Your task to perform on an android device: Open the calendar and show me this week's events? Image 0: 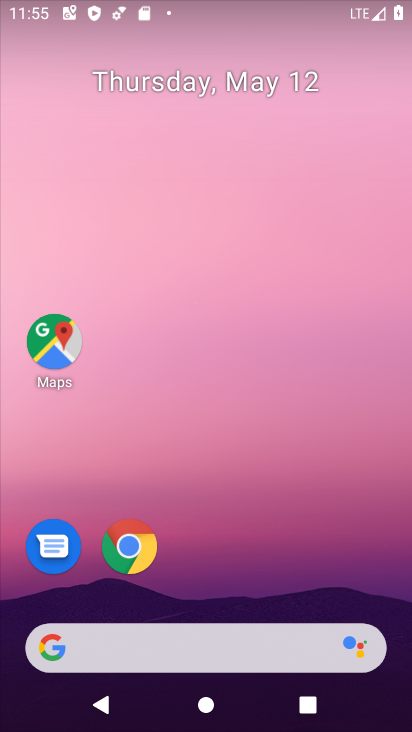
Step 0: click (187, 75)
Your task to perform on an android device: Open the calendar and show me this week's events? Image 1: 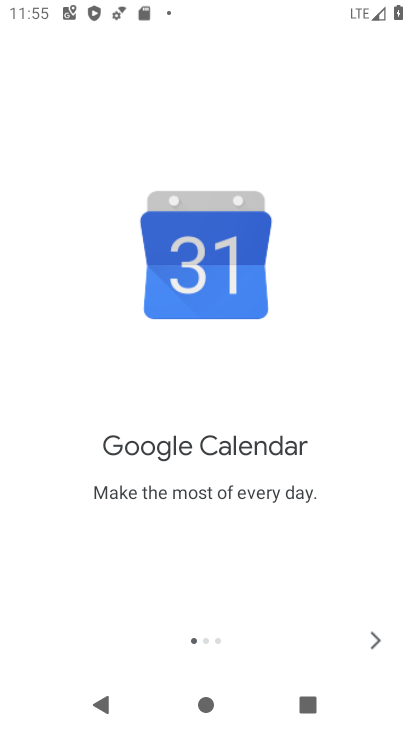
Step 1: click (376, 629)
Your task to perform on an android device: Open the calendar and show me this week's events? Image 2: 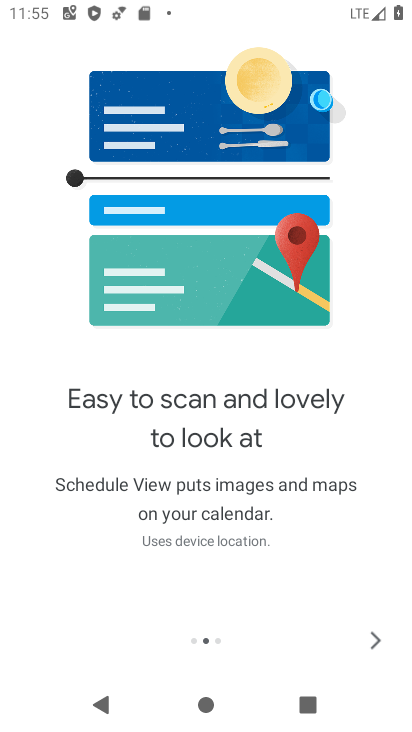
Step 2: click (376, 629)
Your task to perform on an android device: Open the calendar and show me this week's events? Image 3: 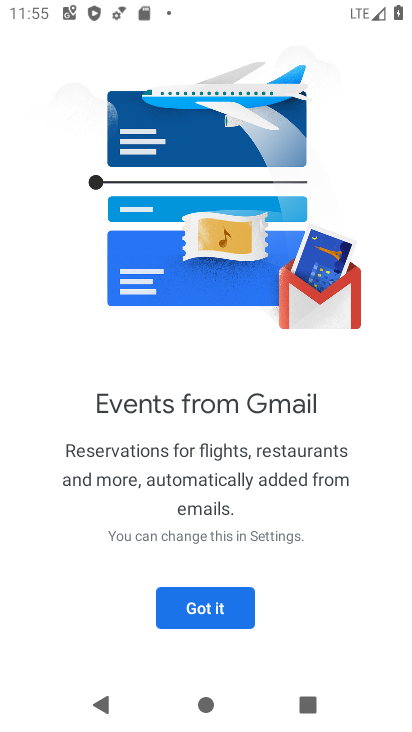
Step 3: click (240, 606)
Your task to perform on an android device: Open the calendar and show me this week's events? Image 4: 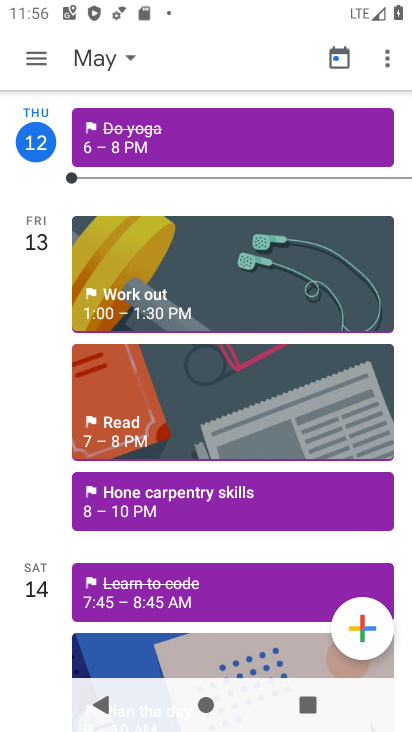
Step 4: click (34, 60)
Your task to perform on an android device: Open the calendar and show me this week's events? Image 5: 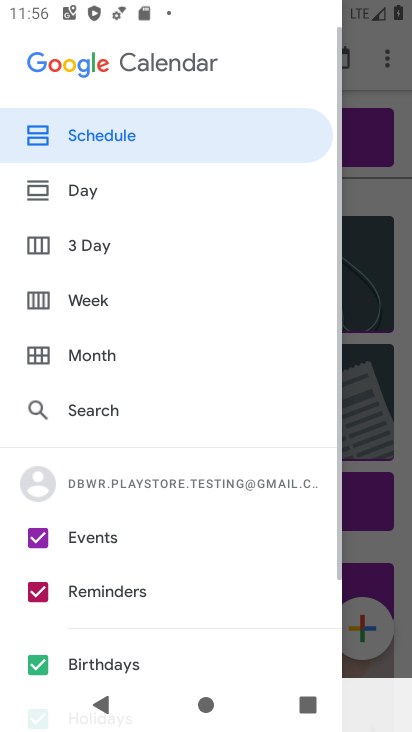
Step 5: click (92, 310)
Your task to perform on an android device: Open the calendar and show me this week's events? Image 6: 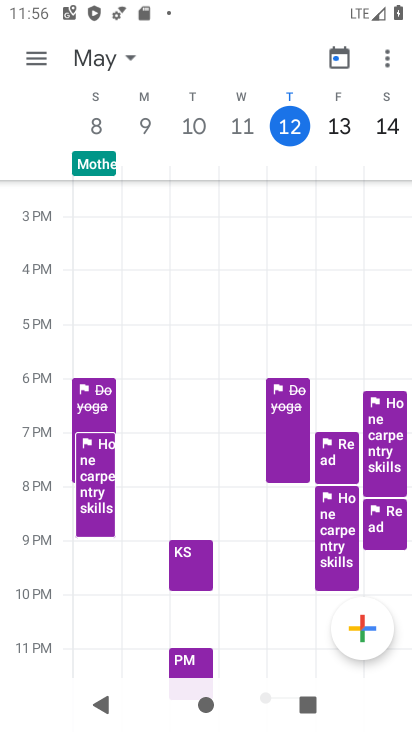
Step 6: click (44, 56)
Your task to perform on an android device: Open the calendar and show me this week's events? Image 7: 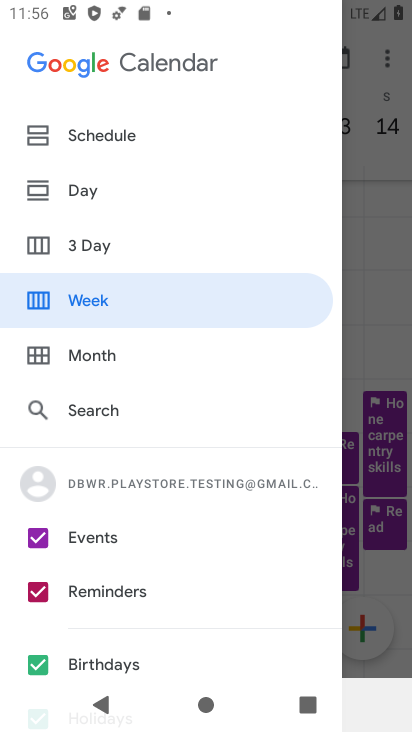
Step 7: drag from (138, 594) to (132, 427)
Your task to perform on an android device: Open the calendar and show me this week's events? Image 8: 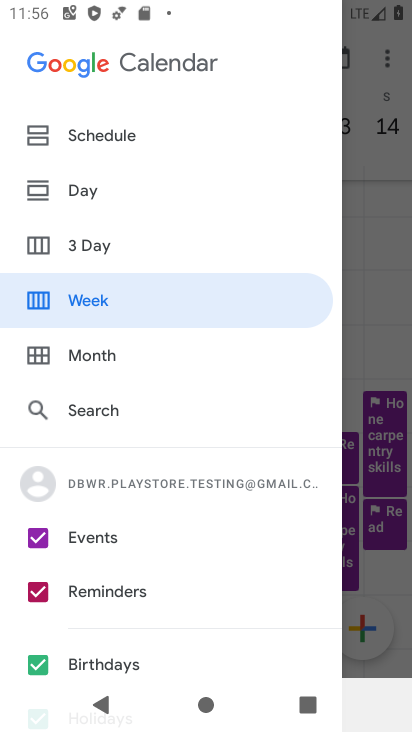
Step 8: click (36, 594)
Your task to perform on an android device: Open the calendar and show me this week's events? Image 9: 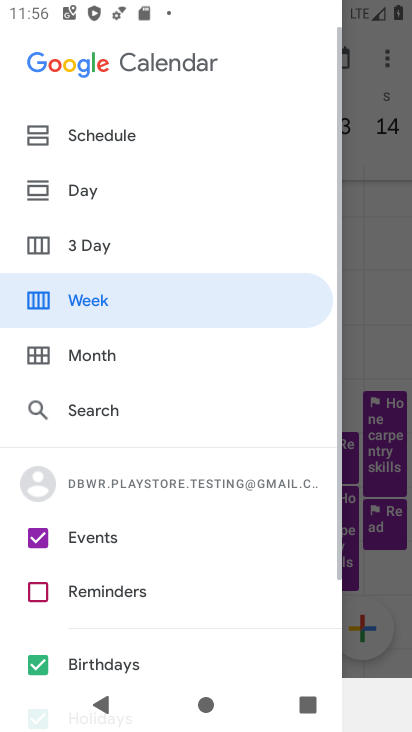
Step 9: click (38, 665)
Your task to perform on an android device: Open the calendar and show me this week's events? Image 10: 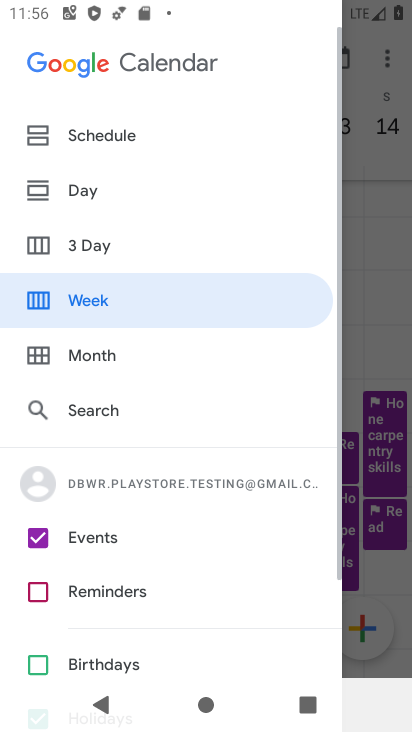
Step 10: drag from (284, 548) to (257, 173)
Your task to perform on an android device: Open the calendar and show me this week's events? Image 11: 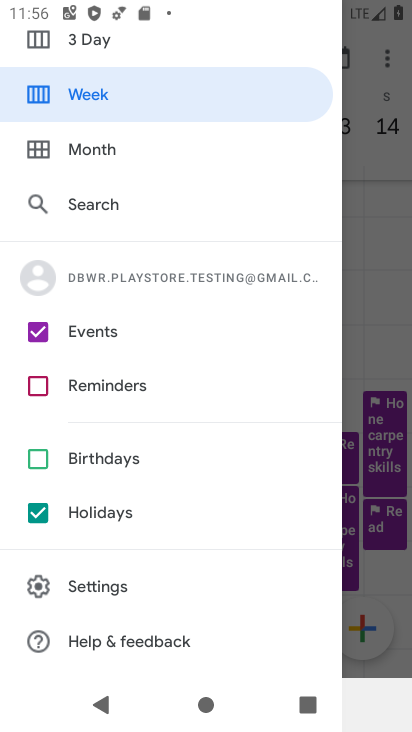
Step 11: click (39, 513)
Your task to perform on an android device: Open the calendar and show me this week's events? Image 12: 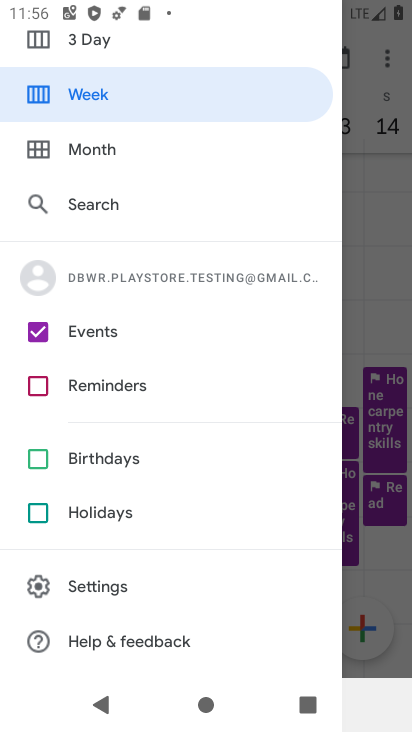
Step 12: click (376, 202)
Your task to perform on an android device: Open the calendar and show me this week's events? Image 13: 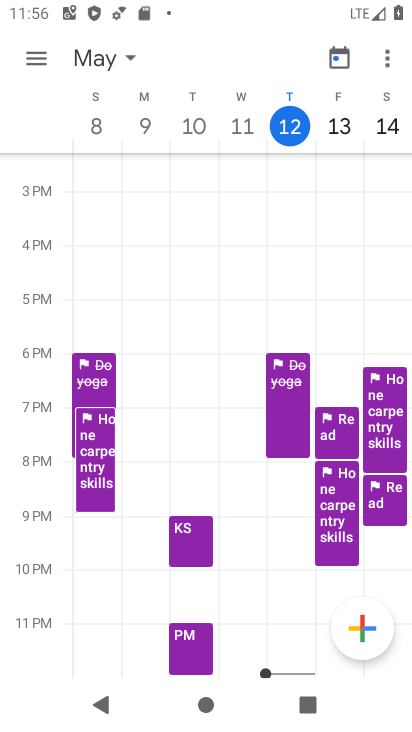
Step 13: task complete